Your task to perform on an android device: turn vacation reply on in the gmail app Image 0: 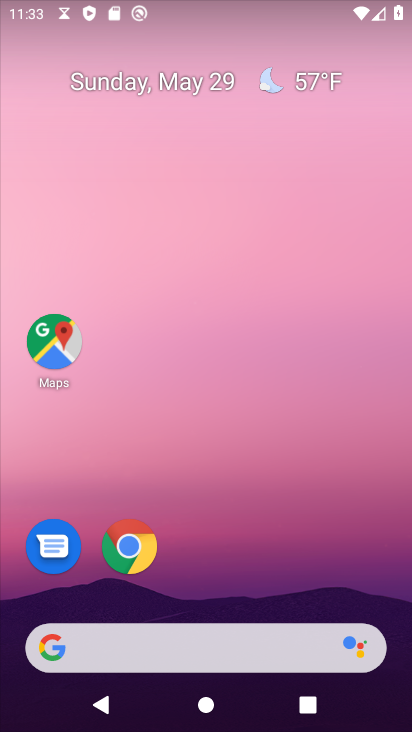
Step 0: press home button
Your task to perform on an android device: turn vacation reply on in the gmail app Image 1: 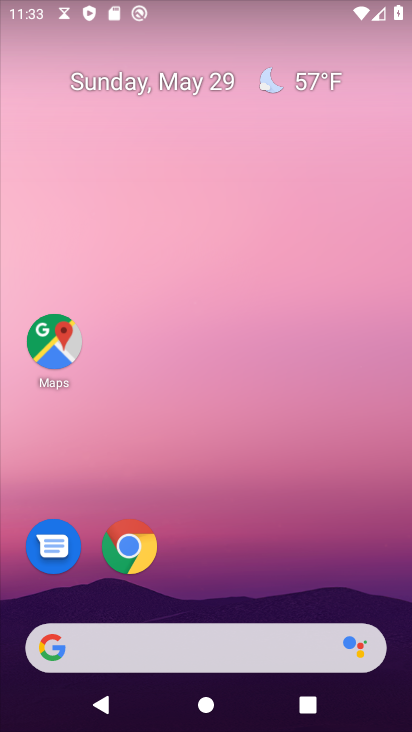
Step 1: drag from (125, 645) to (348, 99)
Your task to perform on an android device: turn vacation reply on in the gmail app Image 2: 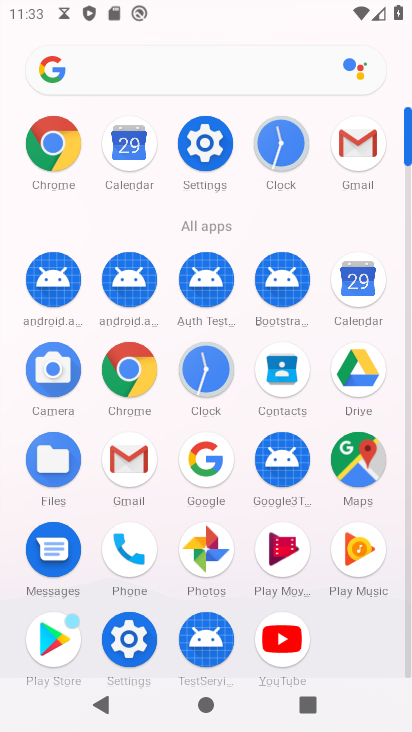
Step 2: click (128, 464)
Your task to perform on an android device: turn vacation reply on in the gmail app Image 3: 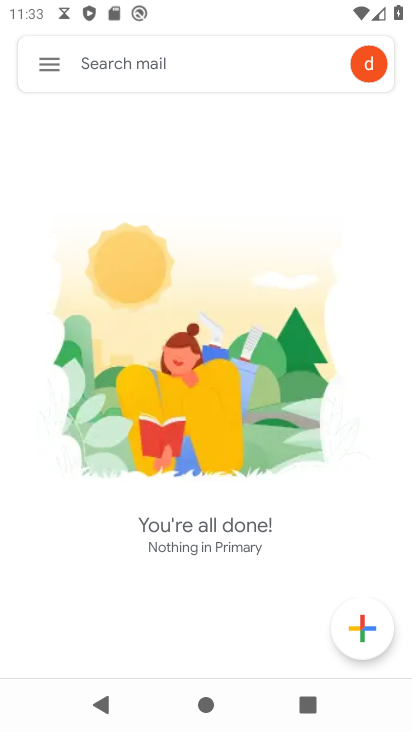
Step 3: click (43, 68)
Your task to perform on an android device: turn vacation reply on in the gmail app Image 4: 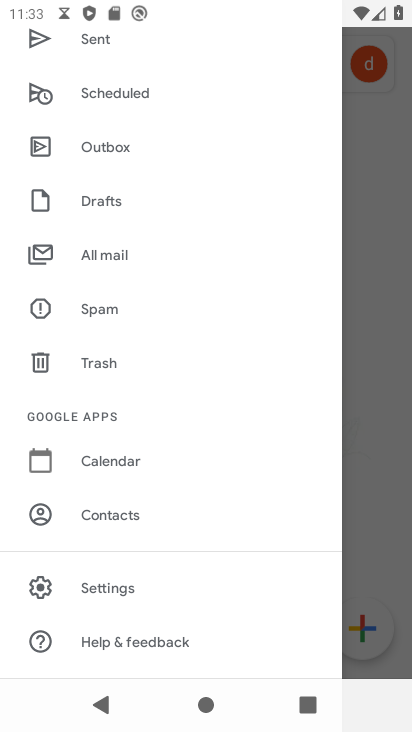
Step 4: click (90, 586)
Your task to perform on an android device: turn vacation reply on in the gmail app Image 5: 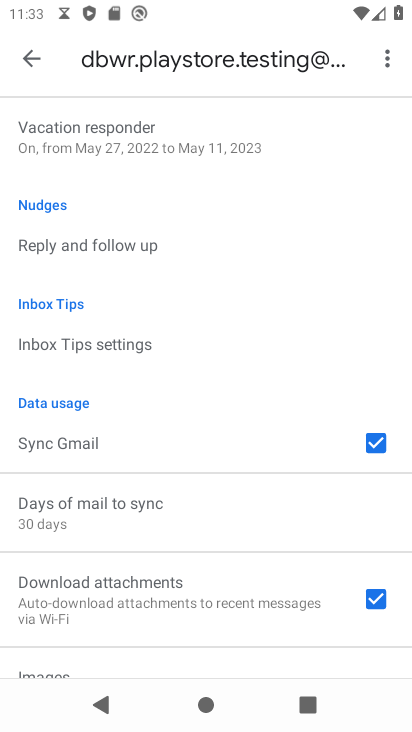
Step 5: drag from (140, 603) to (386, 112)
Your task to perform on an android device: turn vacation reply on in the gmail app Image 6: 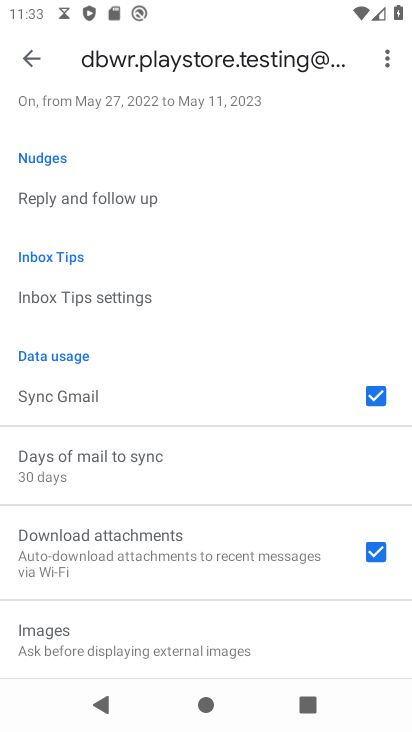
Step 6: drag from (192, 603) to (396, 151)
Your task to perform on an android device: turn vacation reply on in the gmail app Image 7: 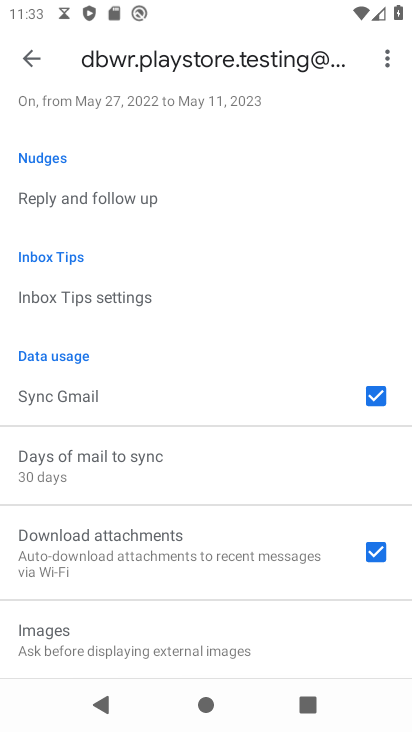
Step 7: drag from (316, 157) to (286, 564)
Your task to perform on an android device: turn vacation reply on in the gmail app Image 8: 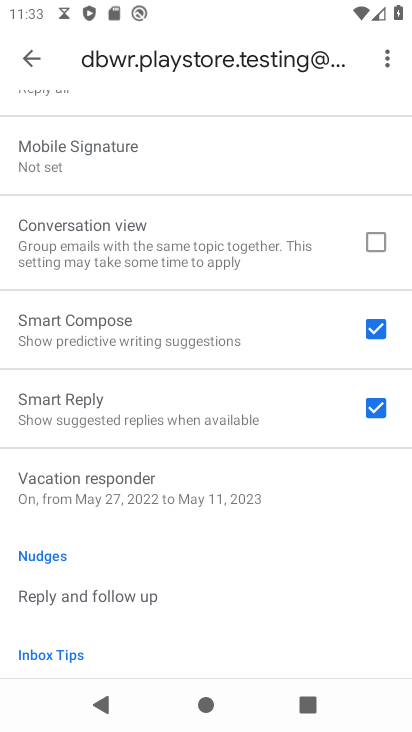
Step 8: click (186, 494)
Your task to perform on an android device: turn vacation reply on in the gmail app Image 9: 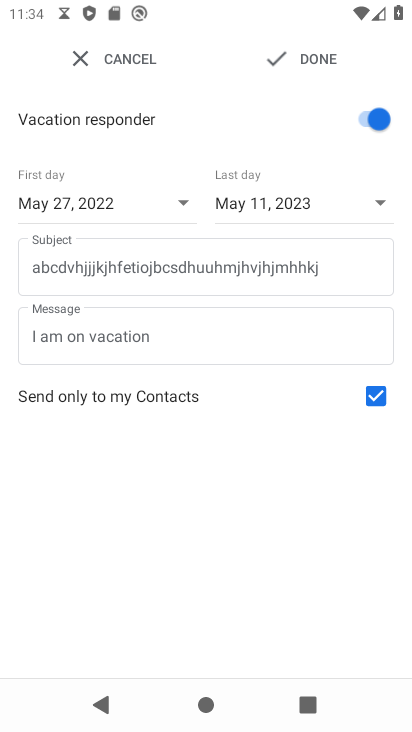
Step 9: task complete